Your task to perform on an android device: Search for pizza restaurants on Maps Image 0: 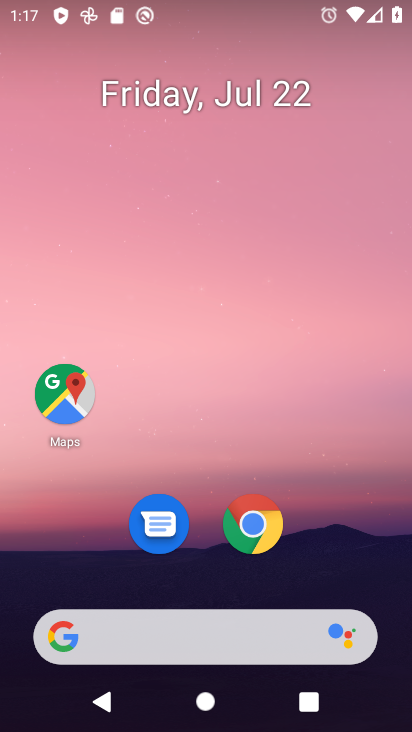
Step 0: click (66, 399)
Your task to perform on an android device: Search for pizza restaurants on Maps Image 1: 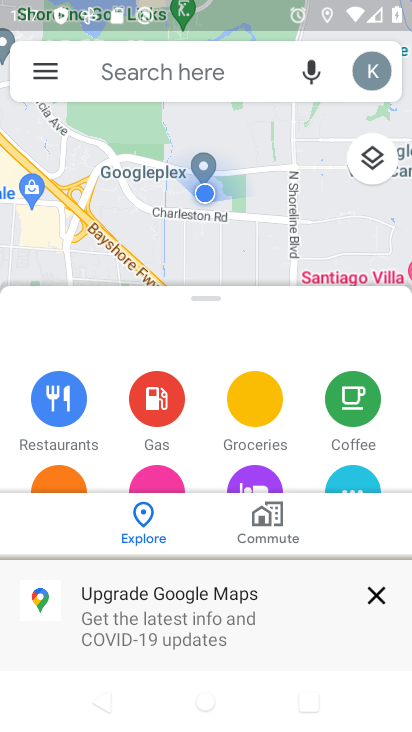
Step 1: click (127, 76)
Your task to perform on an android device: Search for pizza restaurants on Maps Image 2: 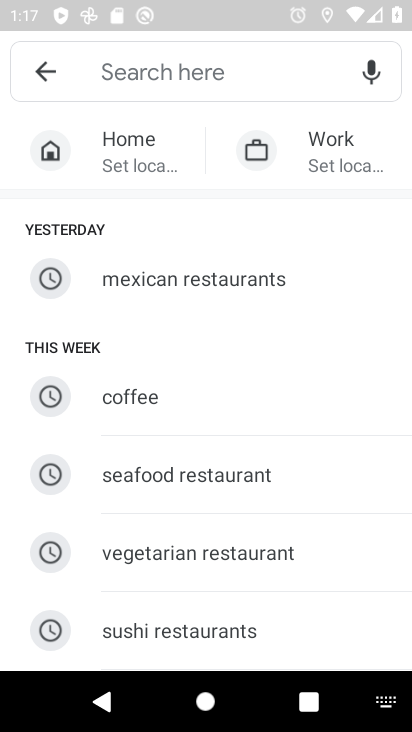
Step 2: drag from (227, 605) to (355, 114)
Your task to perform on an android device: Search for pizza restaurants on Maps Image 3: 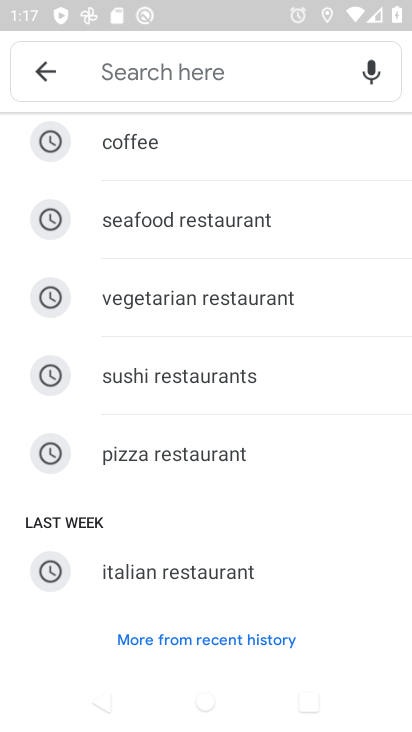
Step 3: click (169, 456)
Your task to perform on an android device: Search for pizza restaurants on Maps Image 4: 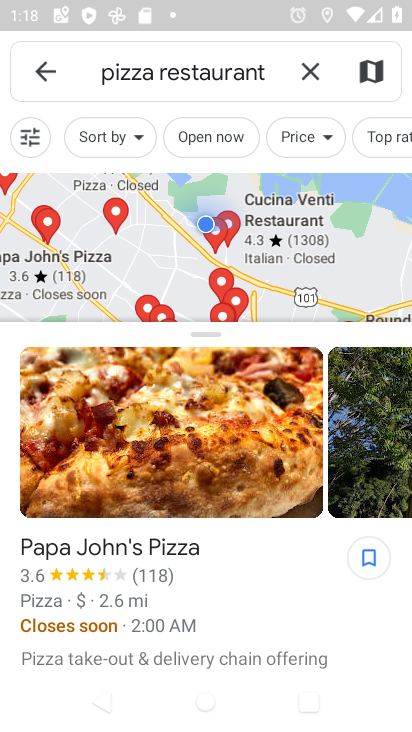
Step 4: task complete